Your task to perform on an android device: Go to Wikipedia Image 0: 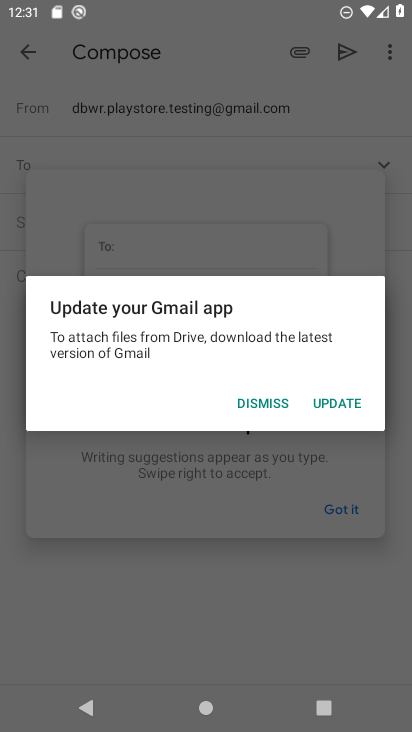
Step 0: press home button
Your task to perform on an android device: Go to Wikipedia Image 1: 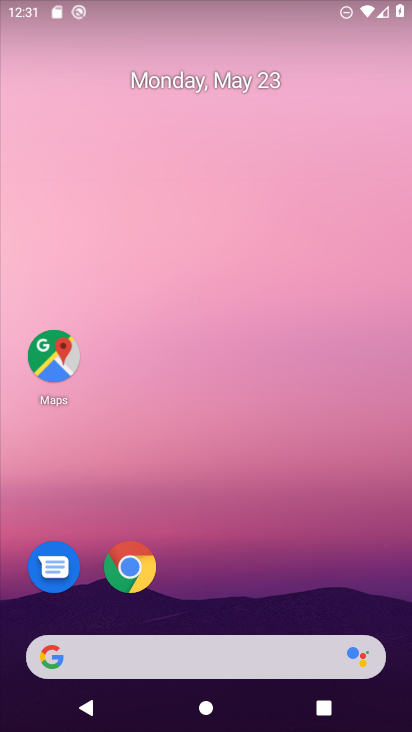
Step 1: click (153, 573)
Your task to perform on an android device: Go to Wikipedia Image 2: 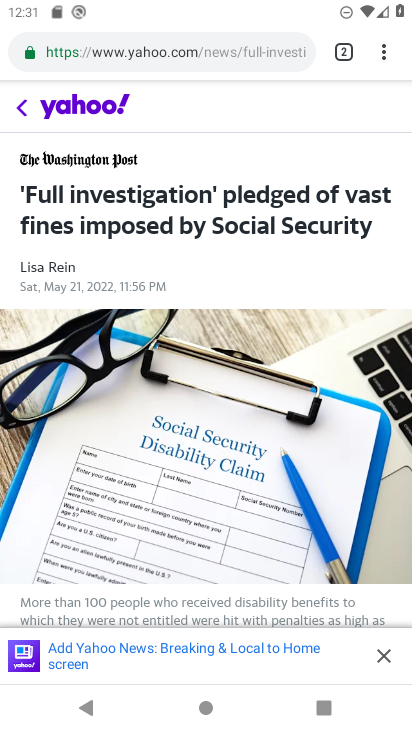
Step 2: click (335, 47)
Your task to perform on an android device: Go to Wikipedia Image 3: 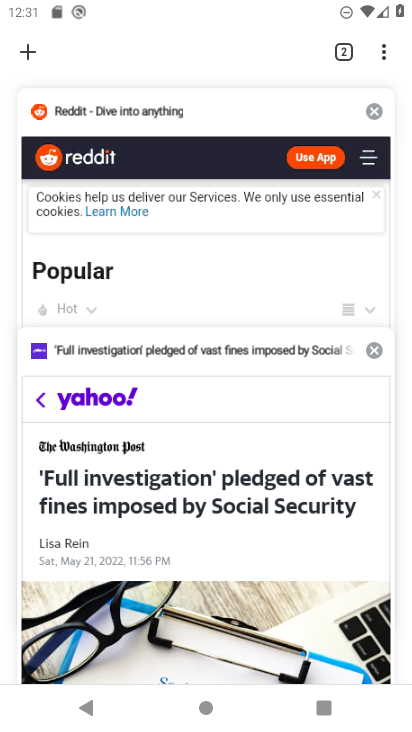
Step 3: click (30, 46)
Your task to perform on an android device: Go to Wikipedia Image 4: 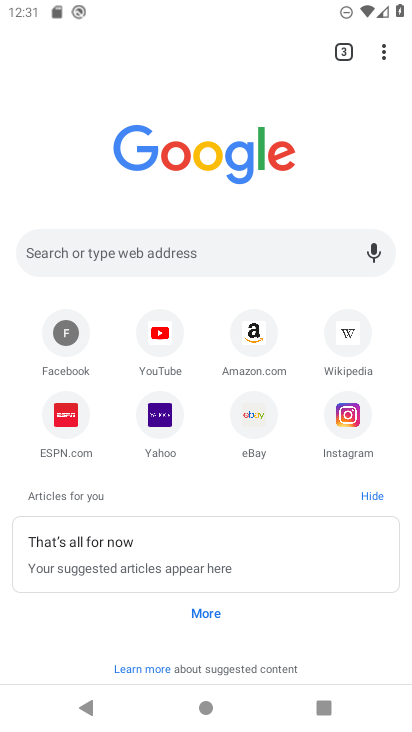
Step 4: click (242, 241)
Your task to perform on an android device: Go to Wikipedia Image 5: 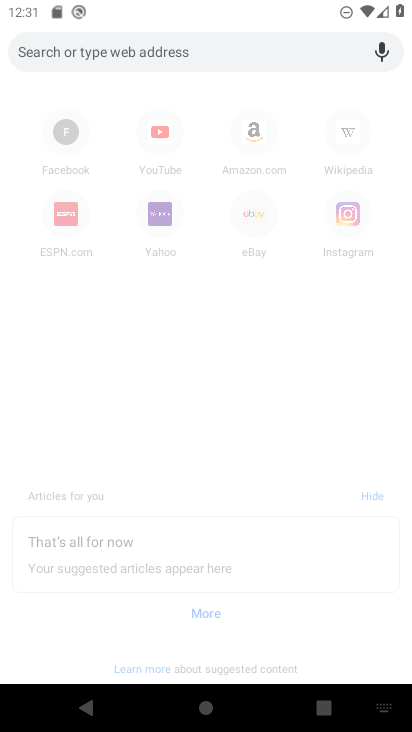
Step 5: type "Wikipedia"
Your task to perform on an android device: Go to Wikipedia Image 6: 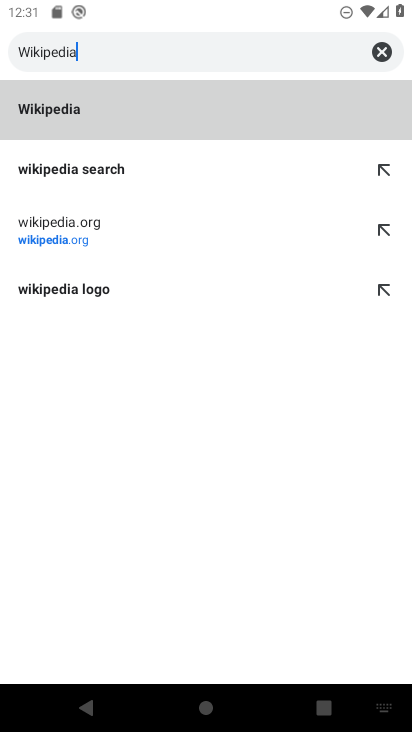
Step 6: click (318, 114)
Your task to perform on an android device: Go to Wikipedia Image 7: 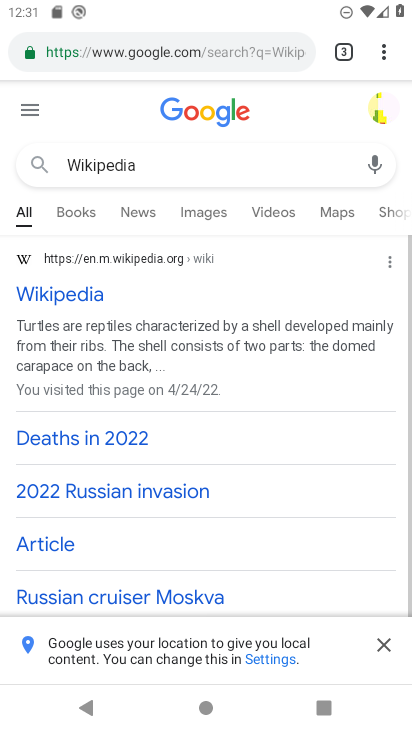
Step 7: click (77, 289)
Your task to perform on an android device: Go to Wikipedia Image 8: 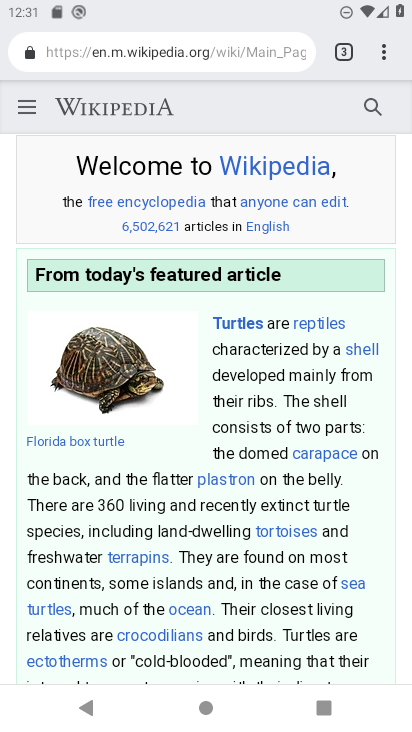
Step 8: task complete